Your task to perform on an android device: Check the news Image 0: 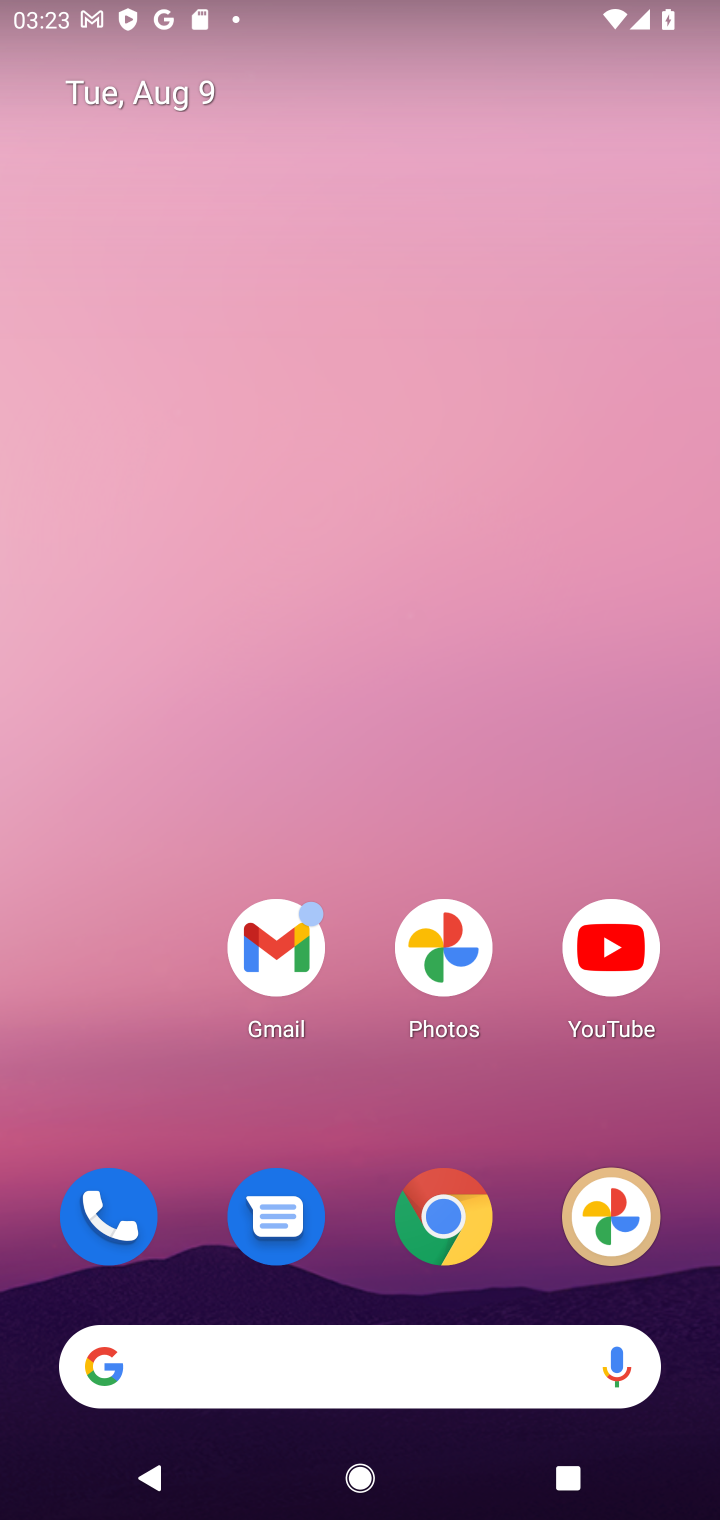
Step 0: click (302, 1364)
Your task to perform on an android device: Check the news Image 1: 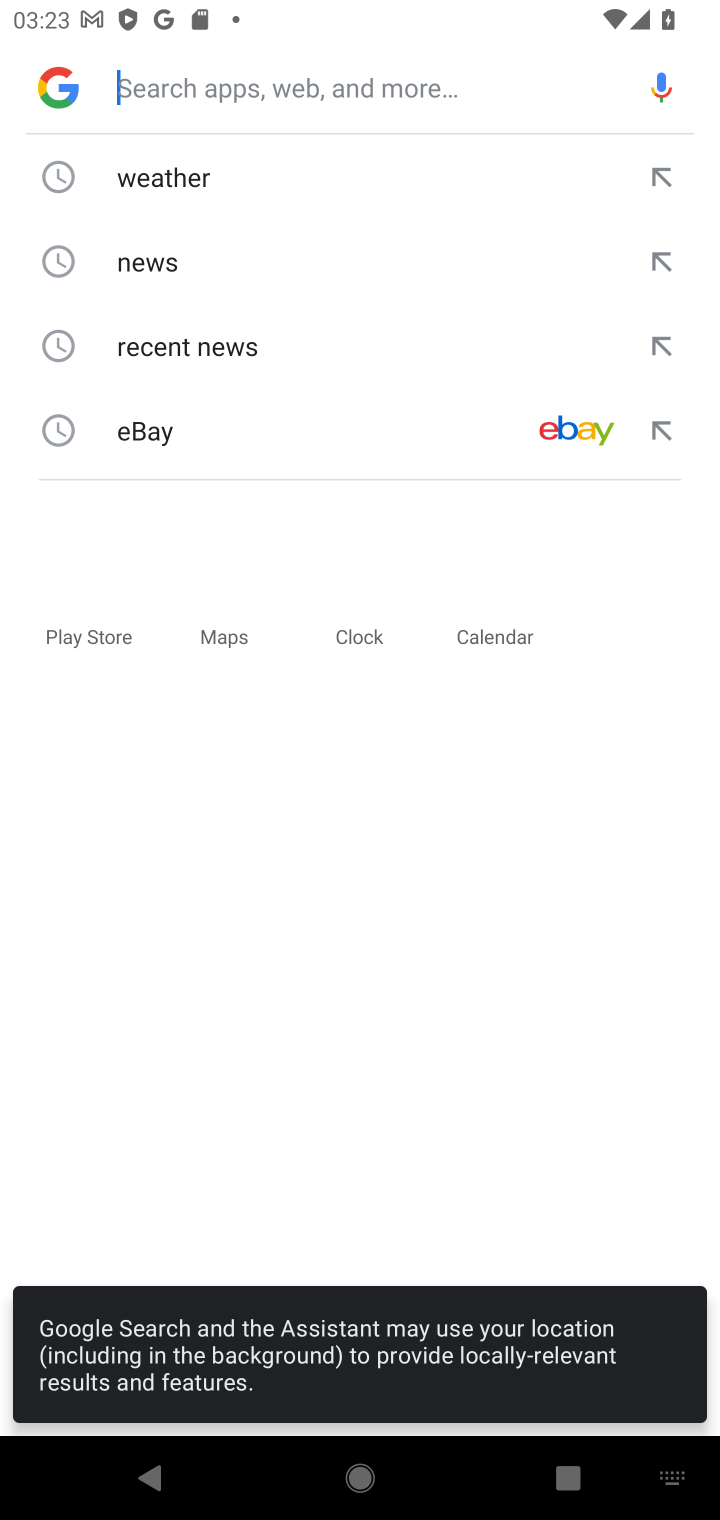
Step 1: type "news"
Your task to perform on an android device: Check the news Image 2: 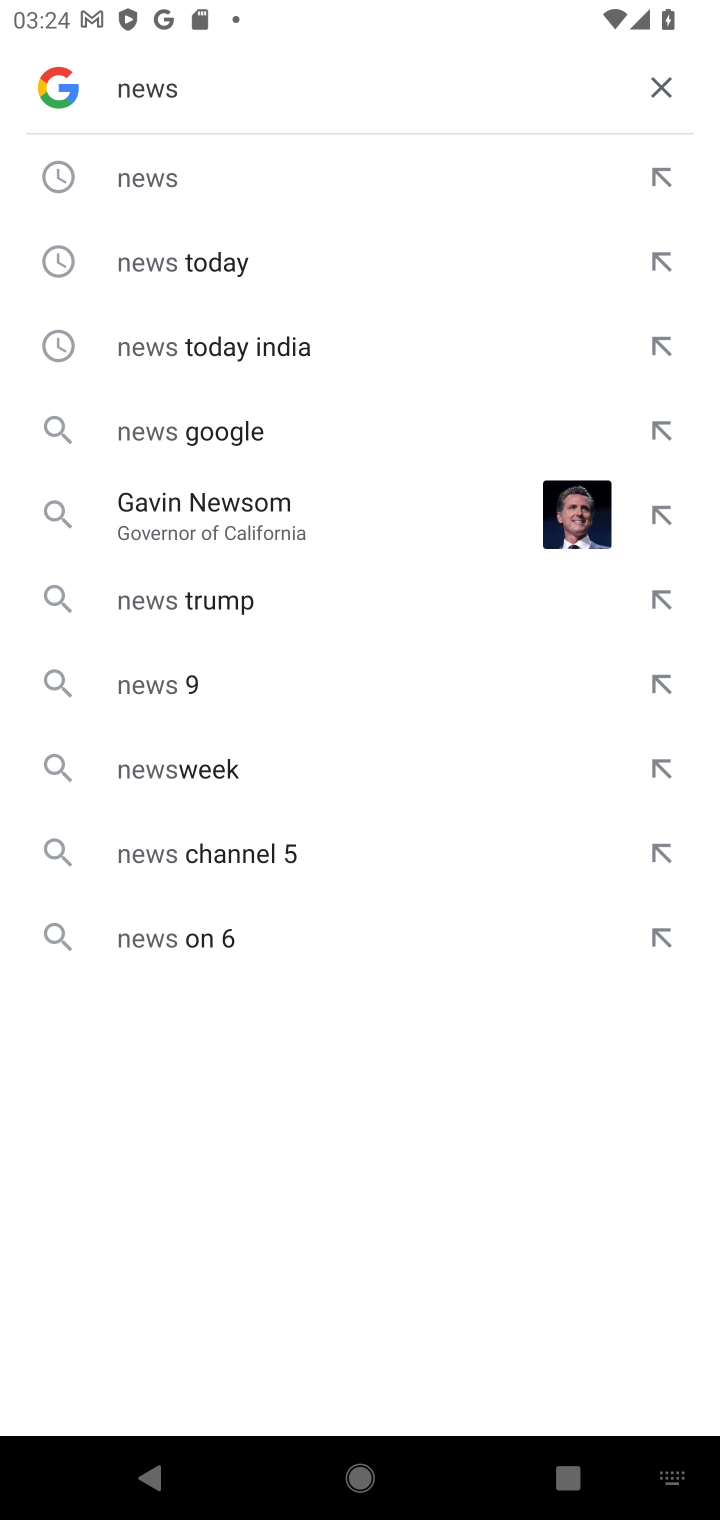
Step 2: click (462, 186)
Your task to perform on an android device: Check the news Image 3: 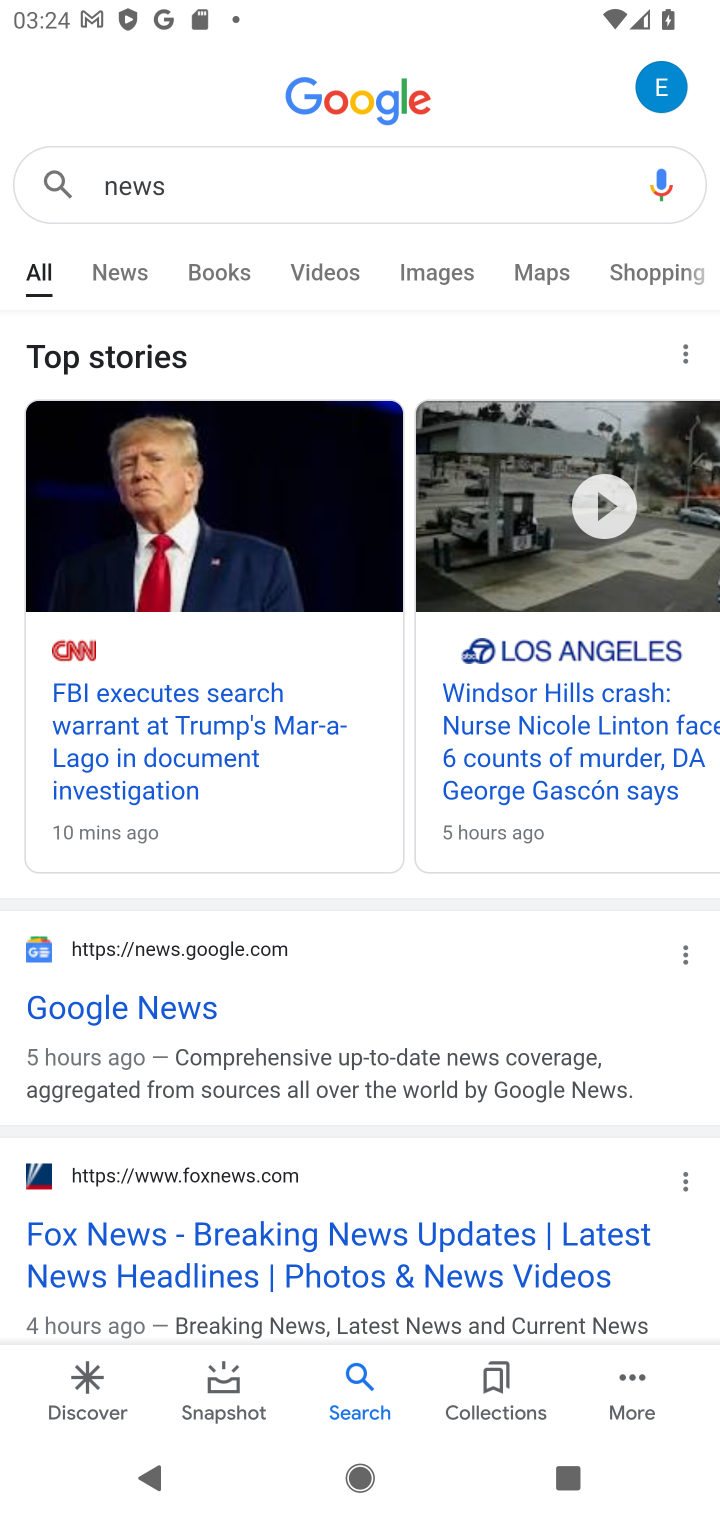
Step 3: click (115, 257)
Your task to perform on an android device: Check the news Image 4: 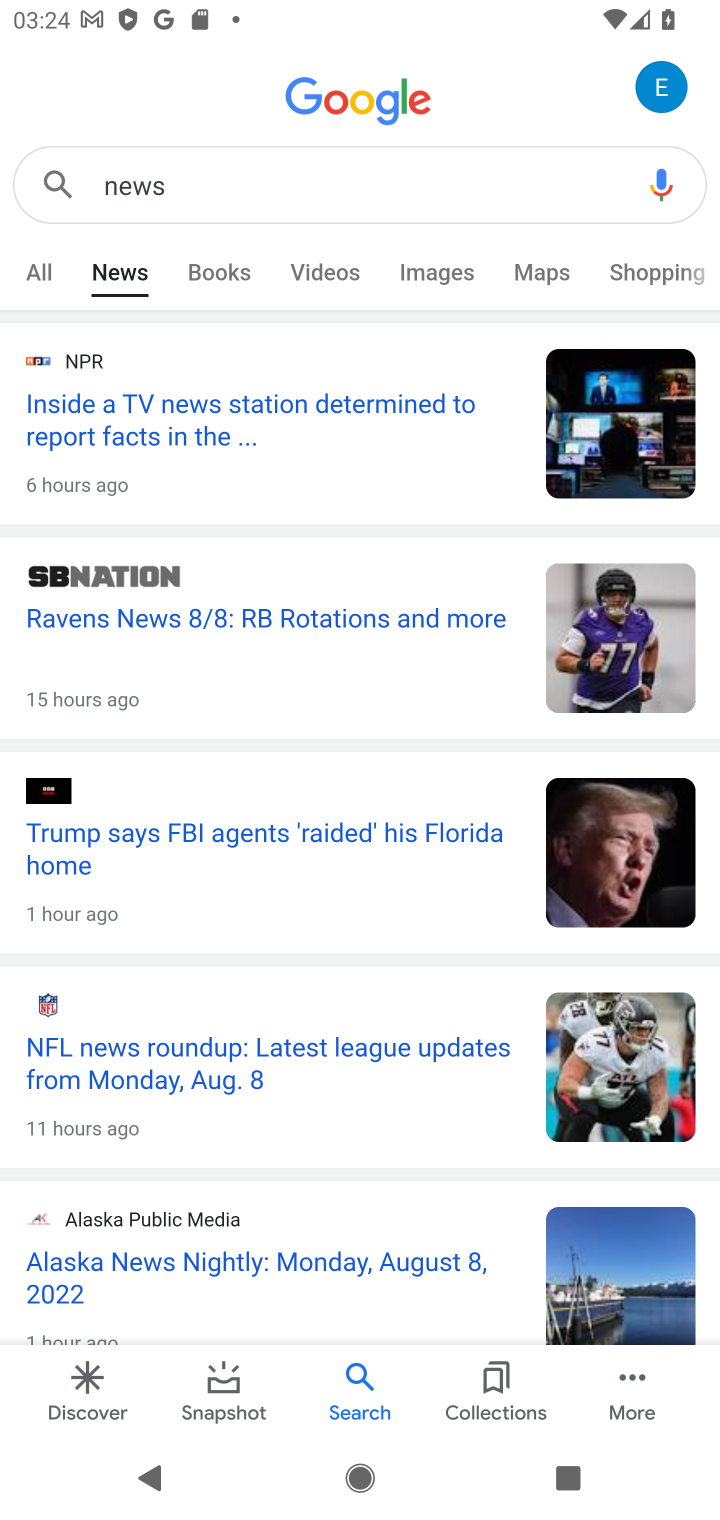
Step 4: task complete